Your task to perform on an android device: toggle notifications settings in the gmail app Image 0: 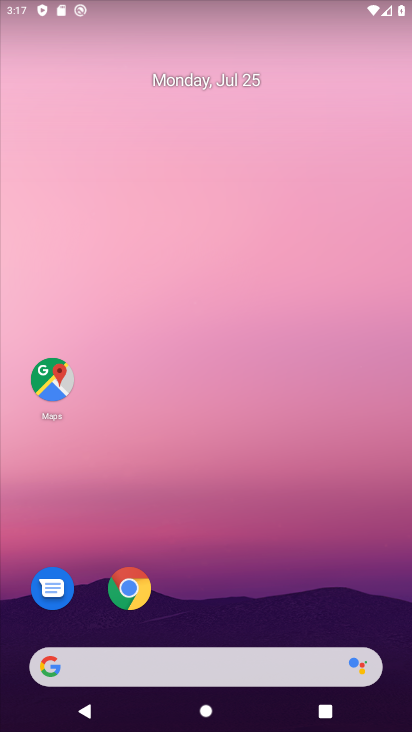
Step 0: drag from (318, 622) to (257, 174)
Your task to perform on an android device: toggle notifications settings in the gmail app Image 1: 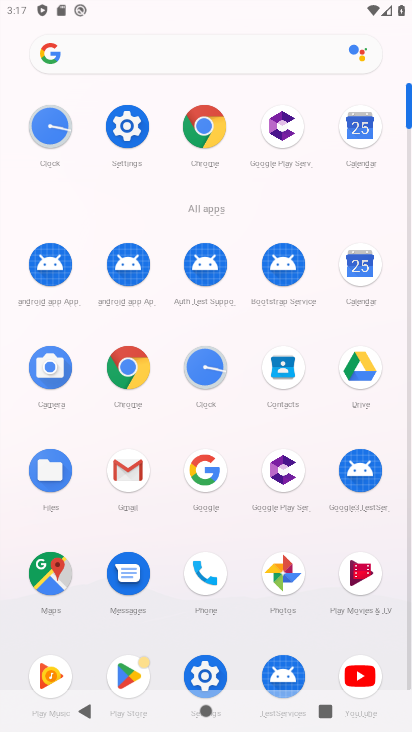
Step 1: click (125, 480)
Your task to perform on an android device: toggle notifications settings in the gmail app Image 2: 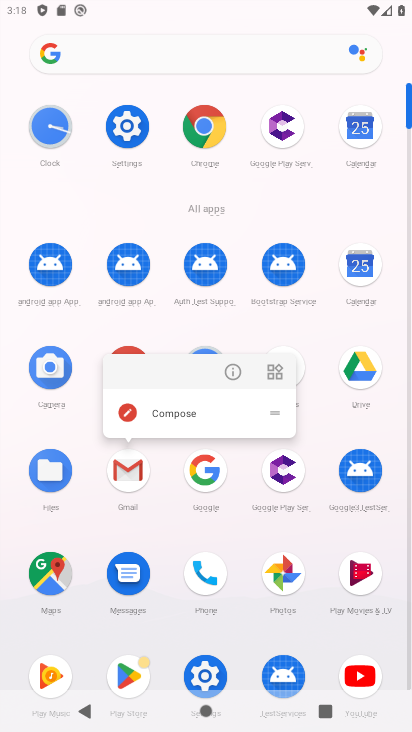
Step 2: click (229, 375)
Your task to perform on an android device: toggle notifications settings in the gmail app Image 3: 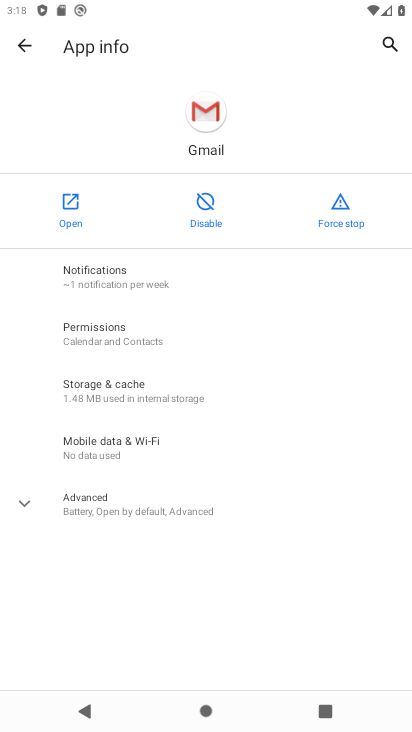
Step 3: click (210, 283)
Your task to perform on an android device: toggle notifications settings in the gmail app Image 4: 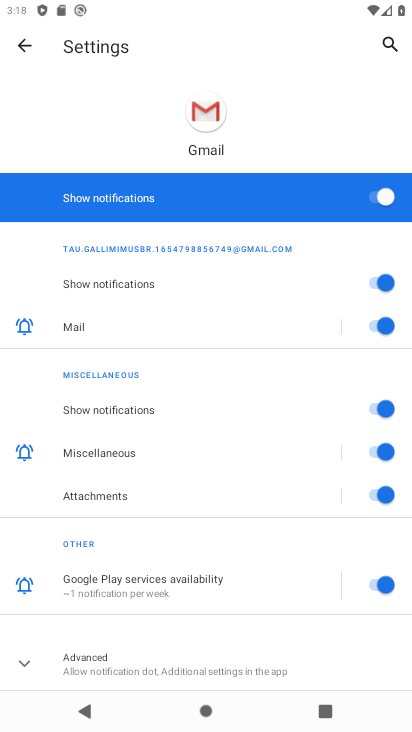
Step 4: click (382, 187)
Your task to perform on an android device: toggle notifications settings in the gmail app Image 5: 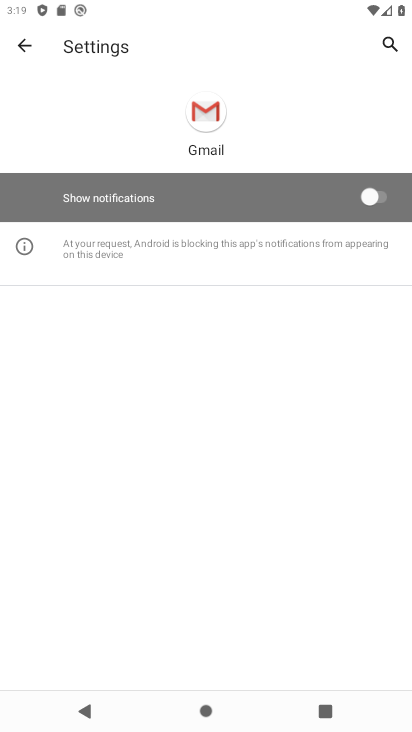
Step 5: task complete